Your task to perform on an android device: Open Android settings Image 0: 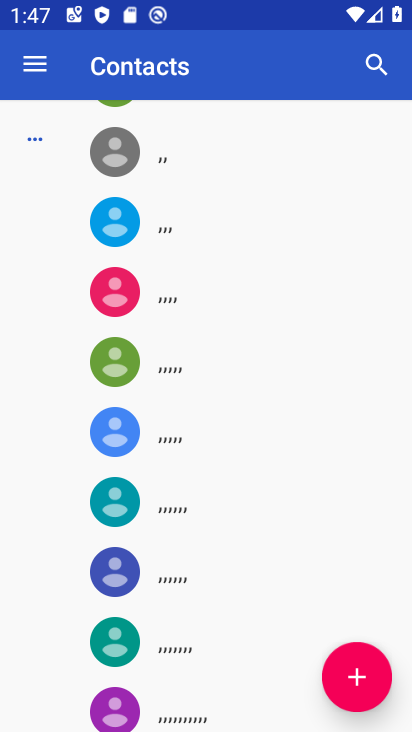
Step 0: drag from (154, 549) to (308, 17)
Your task to perform on an android device: Open Android settings Image 1: 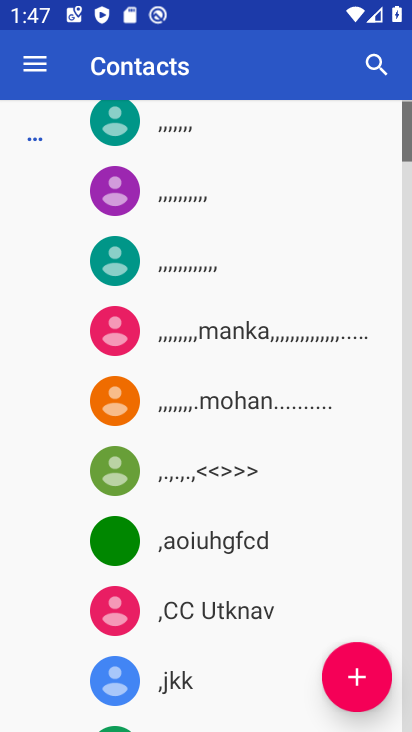
Step 1: press home button
Your task to perform on an android device: Open Android settings Image 2: 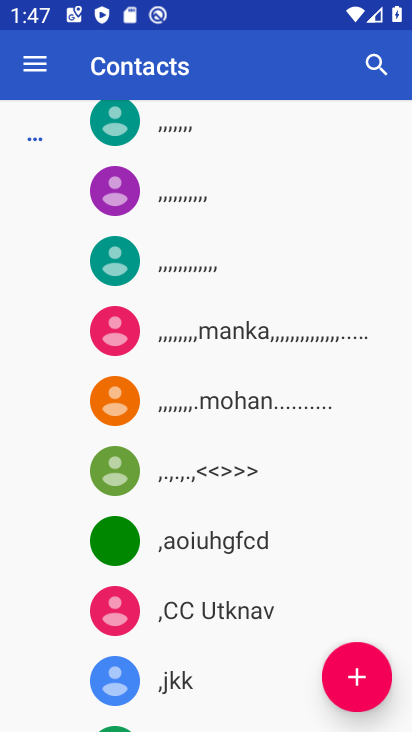
Step 2: drag from (169, 497) to (300, 9)
Your task to perform on an android device: Open Android settings Image 3: 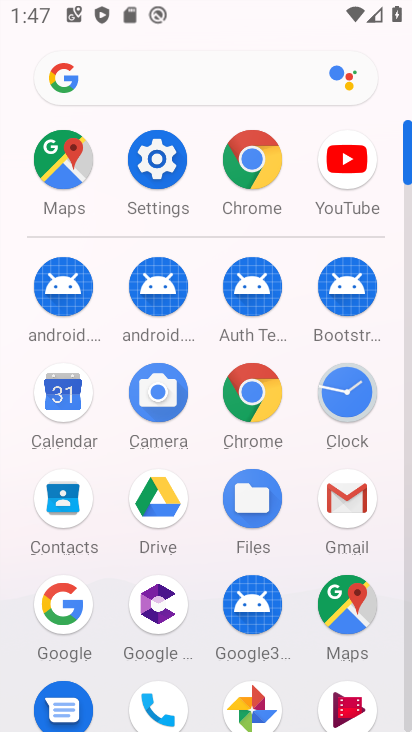
Step 3: click (130, 196)
Your task to perform on an android device: Open Android settings Image 4: 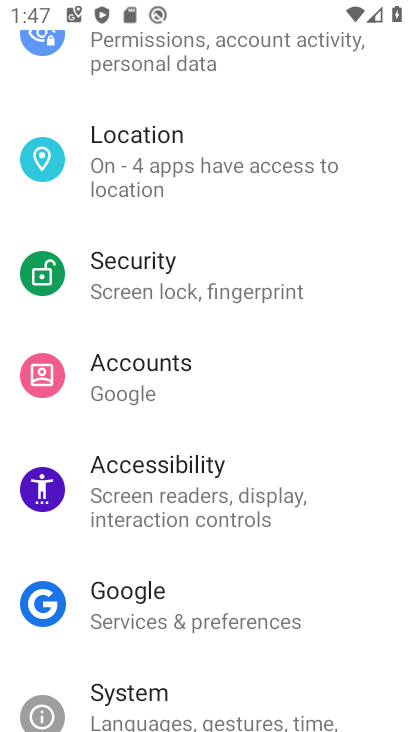
Step 4: drag from (191, 568) to (248, 17)
Your task to perform on an android device: Open Android settings Image 5: 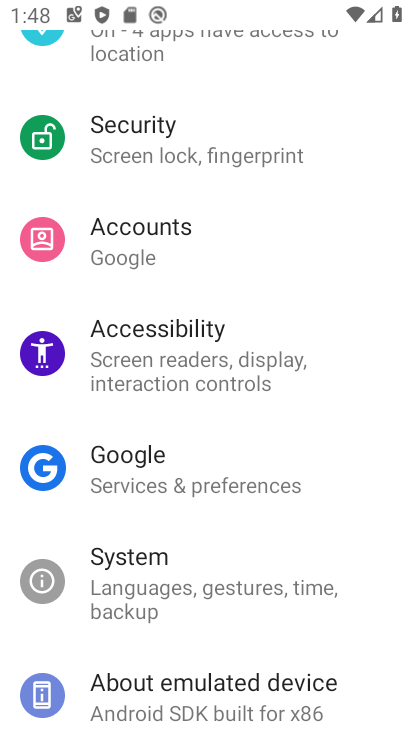
Step 5: click (184, 685)
Your task to perform on an android device: Open Android settings Image 6: 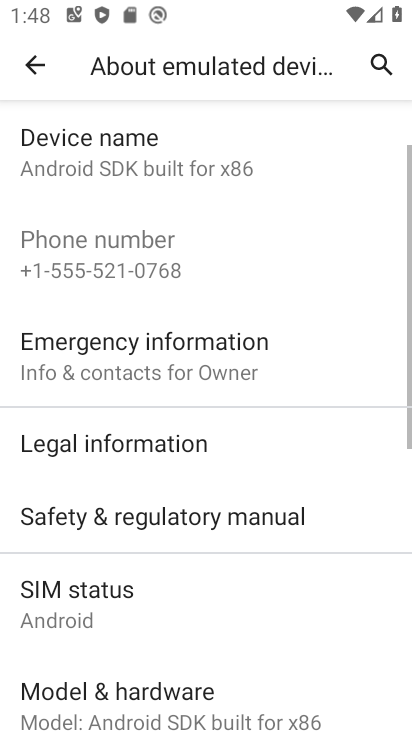
Step 6: drag from (149, 563) to (237, 242)
Your task to perform on an android device: Open Android settings Image 7: 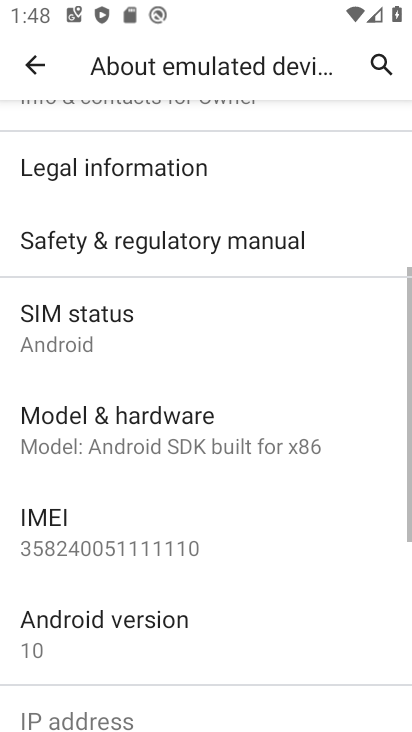
Step 7: drag from (172, 630) to (207, 340)
Your task to perform on an android device: Open Android settings Image 8: 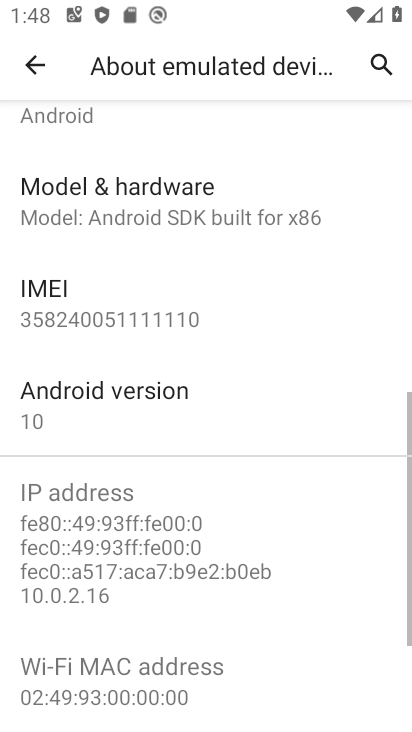
Step 8: click (164, 393)
Your task to perform on an android device: Open Android settings Image 9: 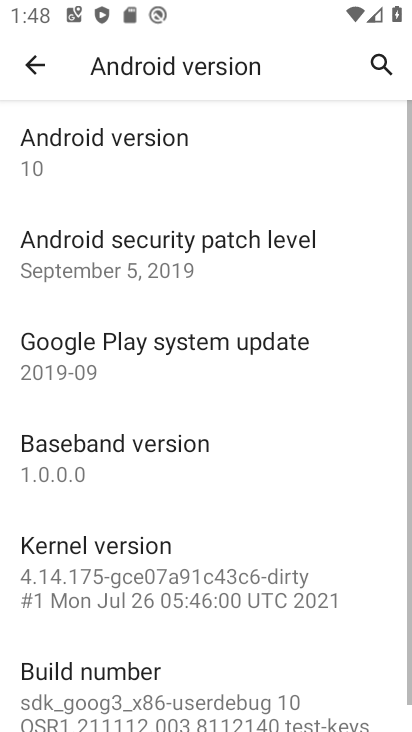
Step 9: drag from (215, 650) to (298, 181)
Your task to perform on an android device: Open Android settings Image 10: 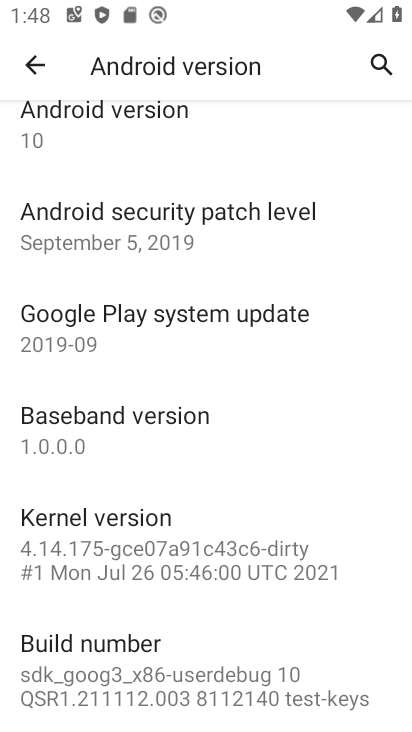
Step 10: drag from (202, 640) to (195, 231)
Your task to perform on an android device: Open Android settings Image 11: 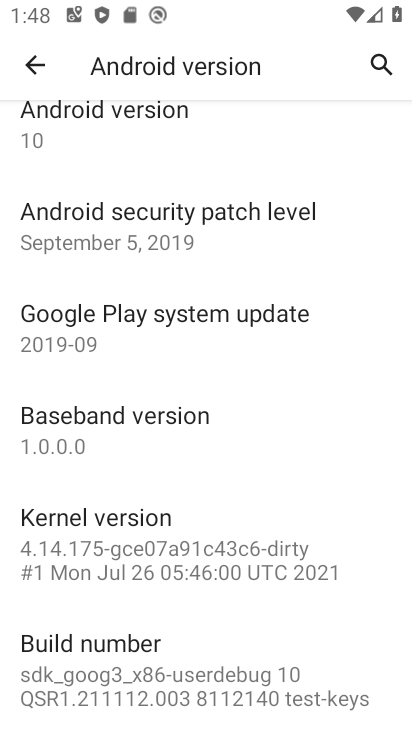
Step 11: click (166, 127)
Your task to perform on an android device: Open Android settings Image 12: 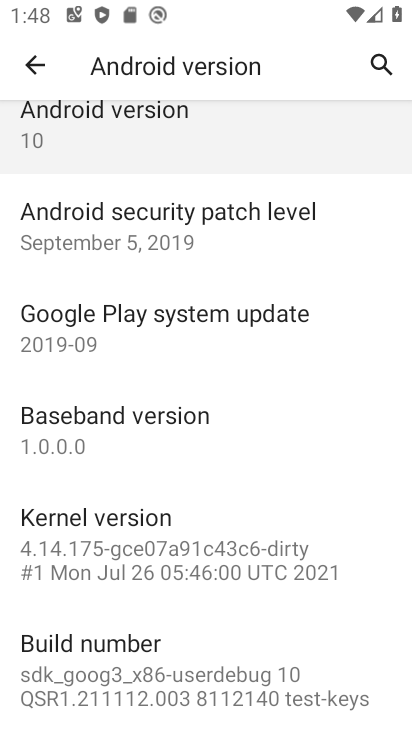
Step 12: task complete